Your task to perform on an android device: open the mobile data screen to see how much data has been used Image 0: 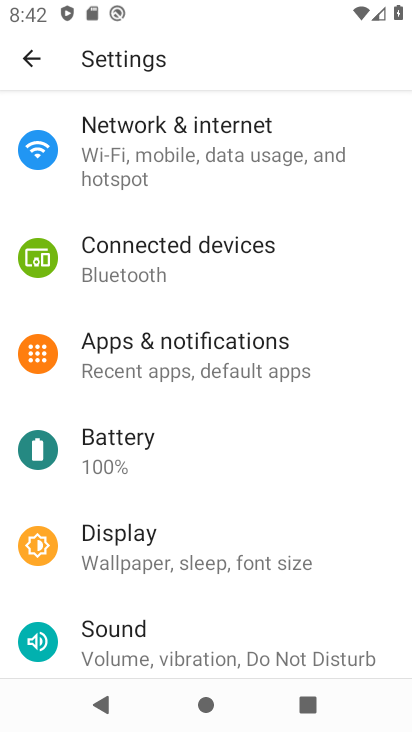
Step 0: drag from (346, 6) to (322, 402)
Your task to perform on an android device: open the mobile data screen to see how much data has been used Image 1: 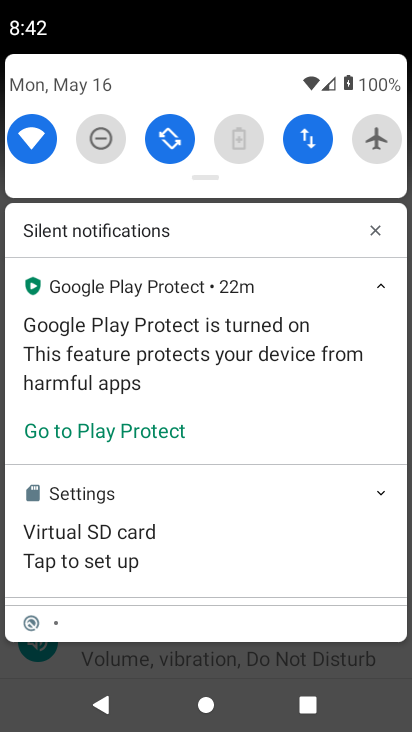
Step 1: click (302, 146)
Your task to perform on an android device: open the mobile data screen to see how much data has been used Image 2: 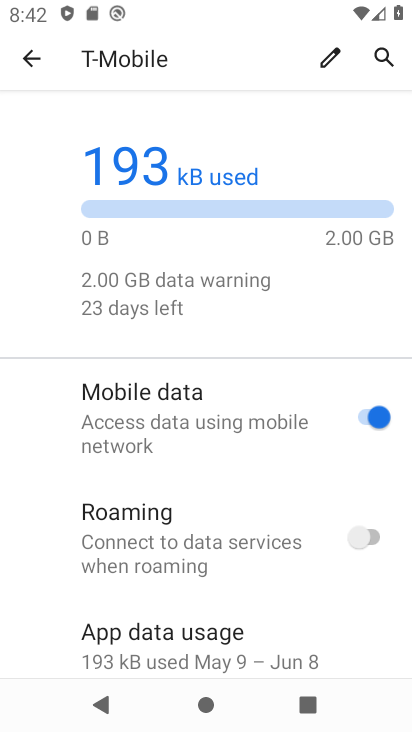
Step 2: task complete